Your task to perform on an android device: Go to accessibility settings Image 0: 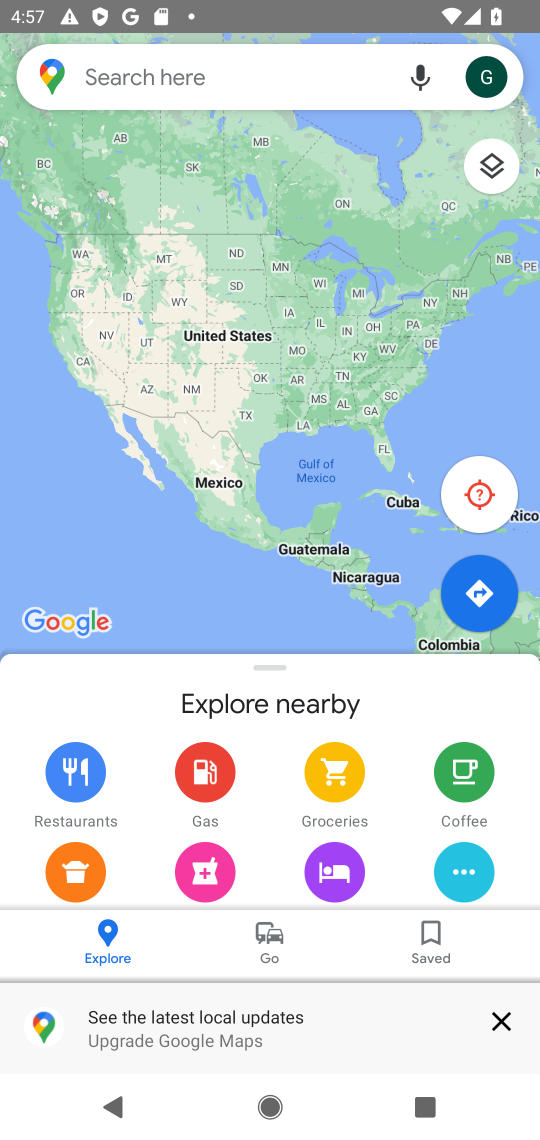
Step 0: press home button
Your task to perform on an android device: Go to accessibility settings Image 1: 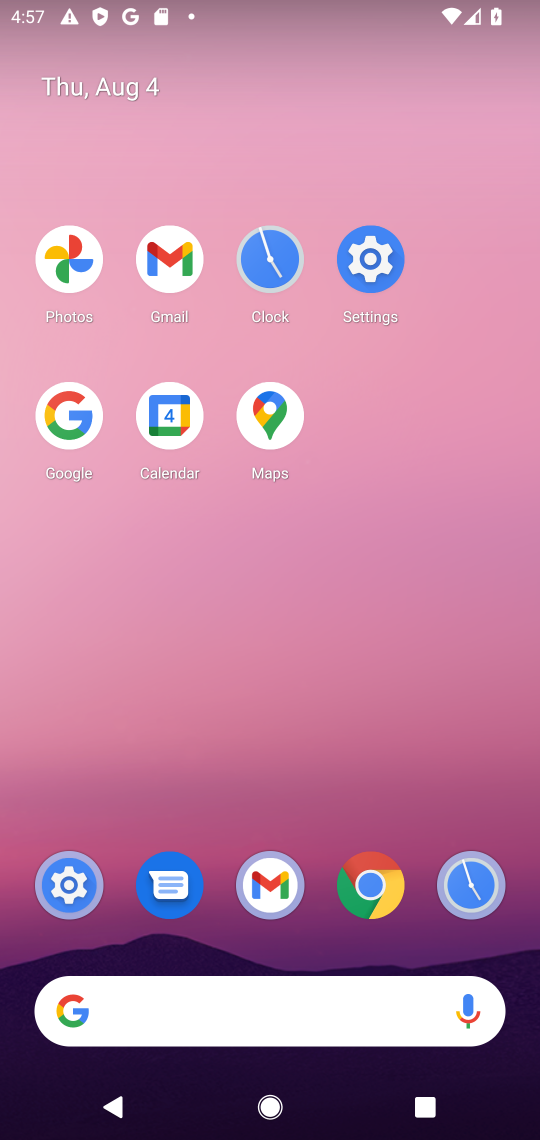
Step 1: click (384, 235)
Your task to perform on an android device: Go to accessibility settings Image 2: 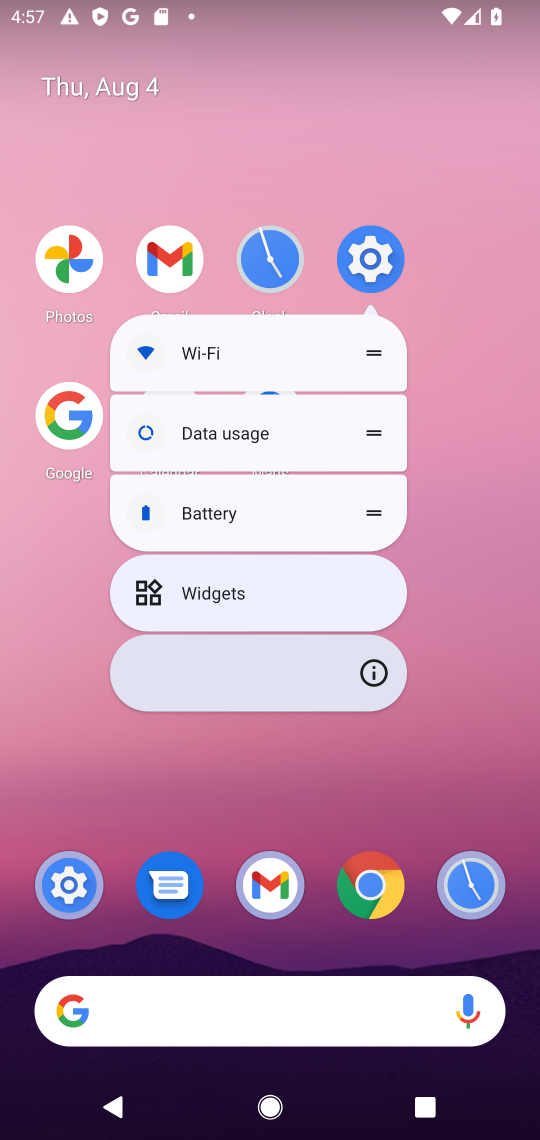
Step 2: click (384, 235)
Your task to perform on an android device: Go to accessibility settings Image 3: 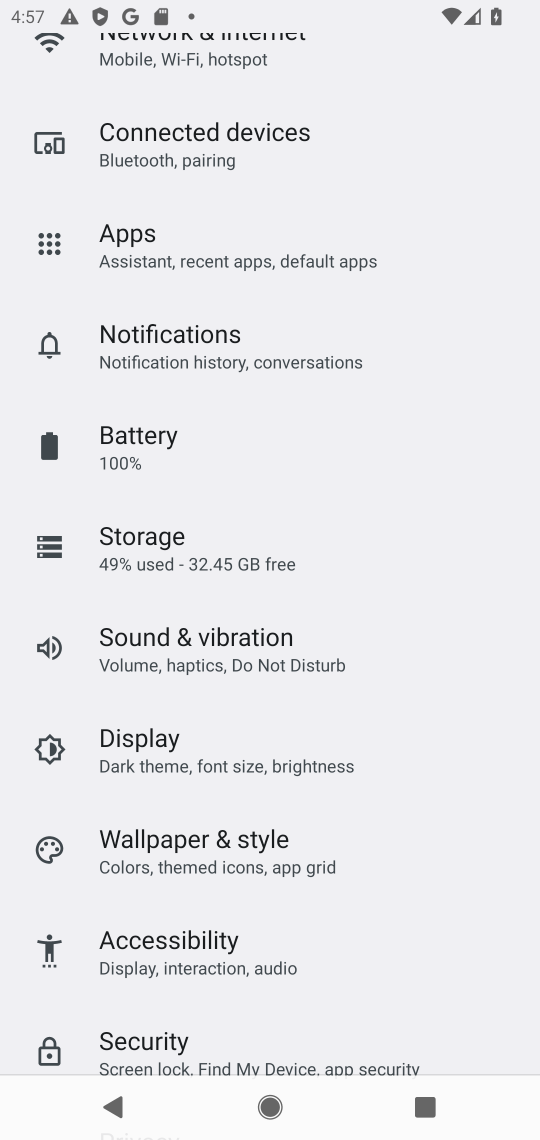
Step 3: click (209, 961)
Your task to perform on an android device: Go to accessibility settings Image 4: 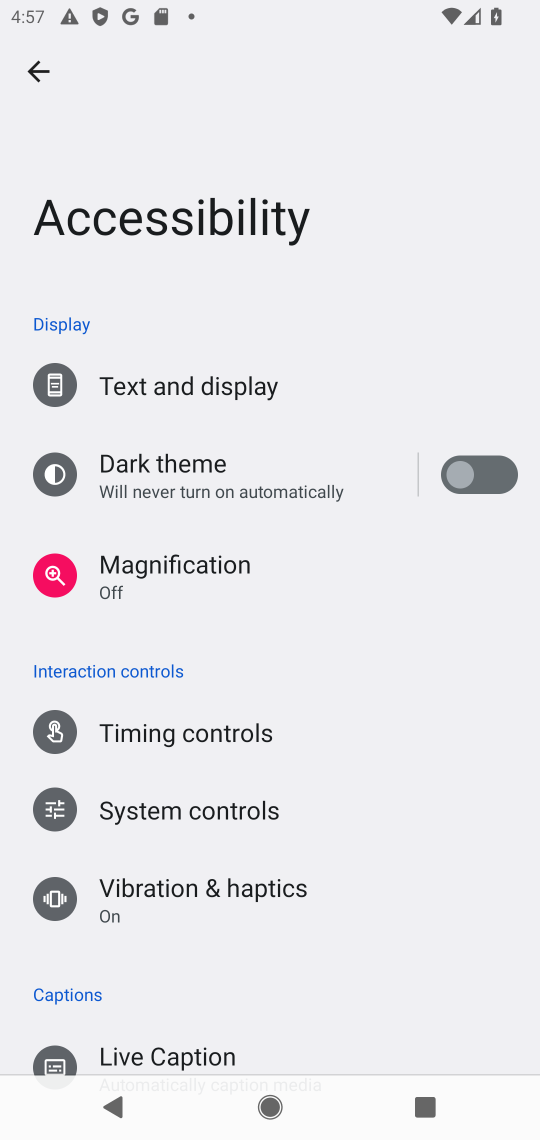
Step 4: task complete